Your task to perform on an android device: check battery use Image 0: 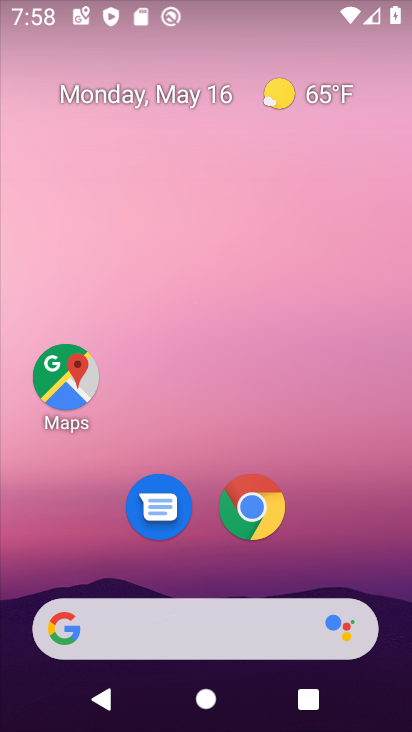
Step 0: press home button
Your task to perform on an android device: check battery use Image 1: 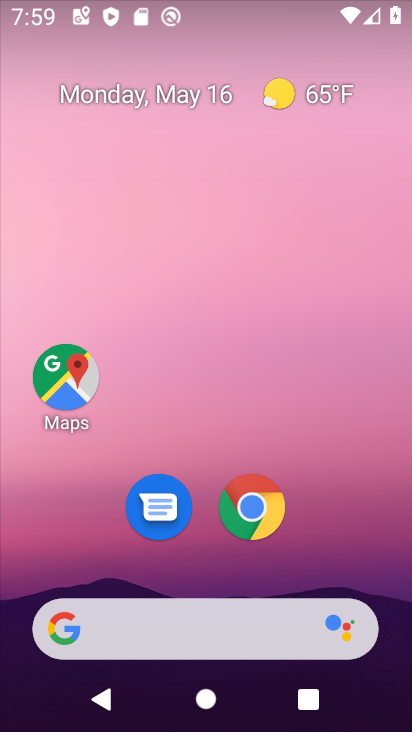
Step 1: drag from (202, 424) to (206, 51)
Your task to perform on an android device: check battery use Image 2: 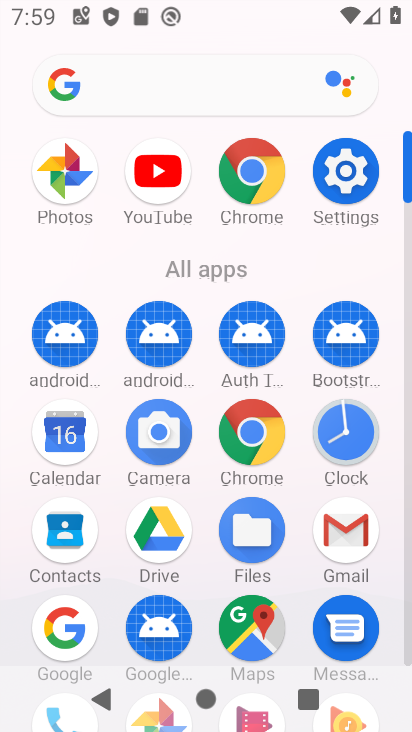
Step 2: drag from (209, 559) to (216, 79)
Your task to perform on an android device: check battery use Image 3: 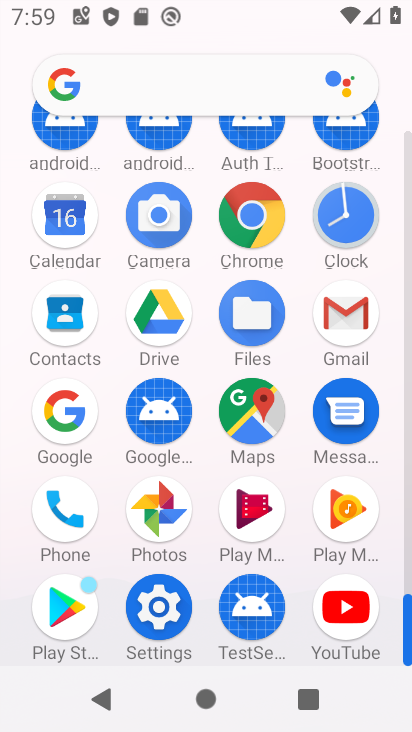
Step 3: click (157, 603)
Your task to perform on an android device: check battery use Image 4: 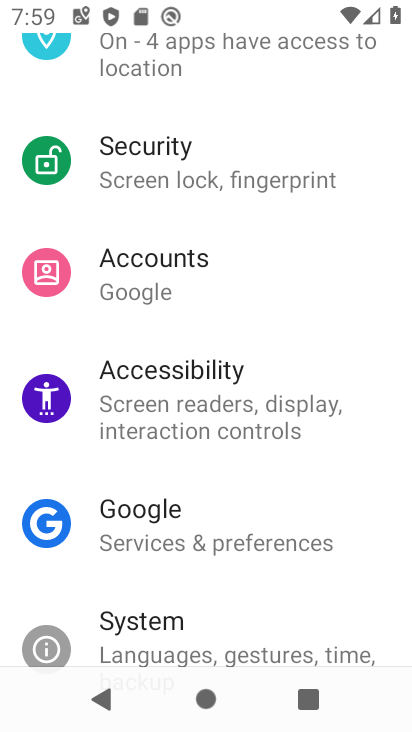
Step 4: drag from (167, 97) to (193, 588)
Your task to perform on an android device: check battery use Image 5: 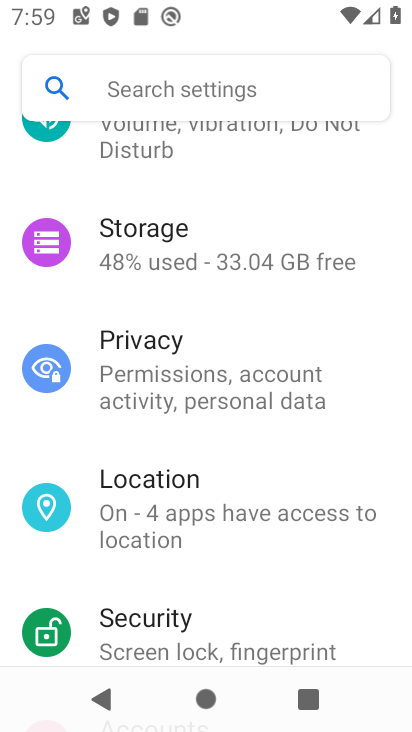
Step 5: drag from (164, 169) to (210, 522)
Your task to perform on an android device: check battery use Image 6: 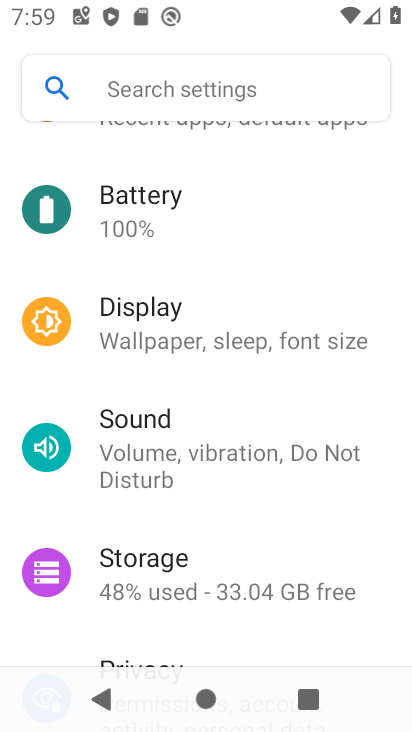
Step 6: click (164, 214)
Your task to perform on an android device: check battery use Image 7: 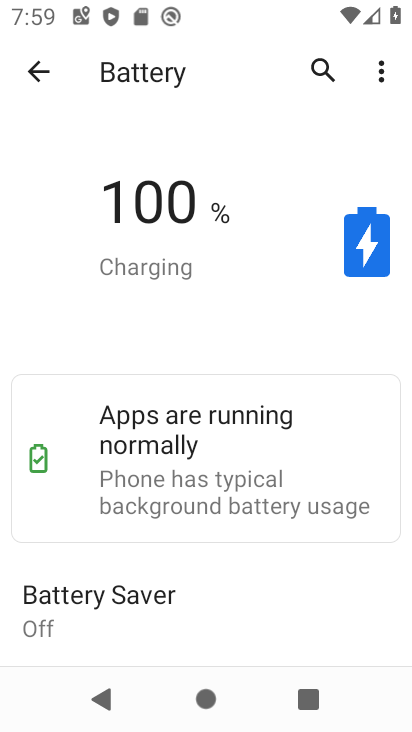
Step 7: drag from (216, 546) to (242, 235)
Your task to perform on an android device: check battery use Image 8: 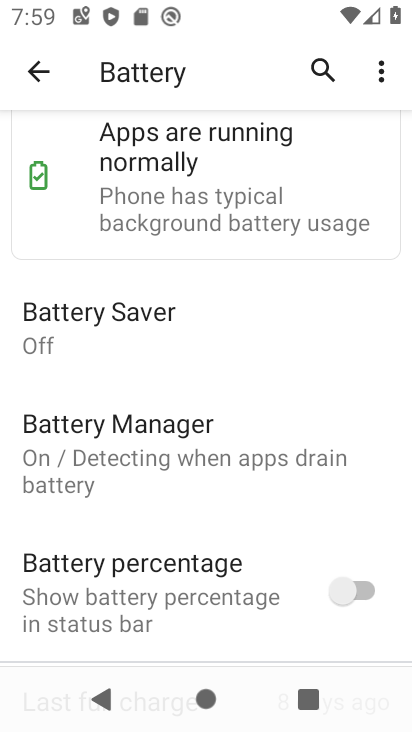
Step 8: click (375, 67)
Your task to perform on an android device: check battery use Image 9: 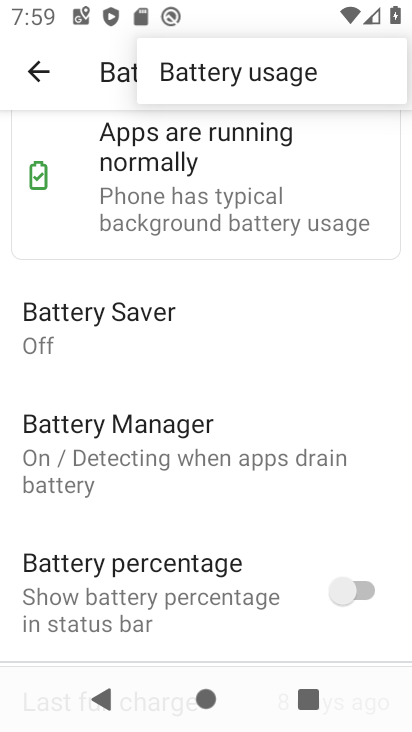
Step 9: click (243, 79)
Your task to perform on an android device: check battery use Image 10: 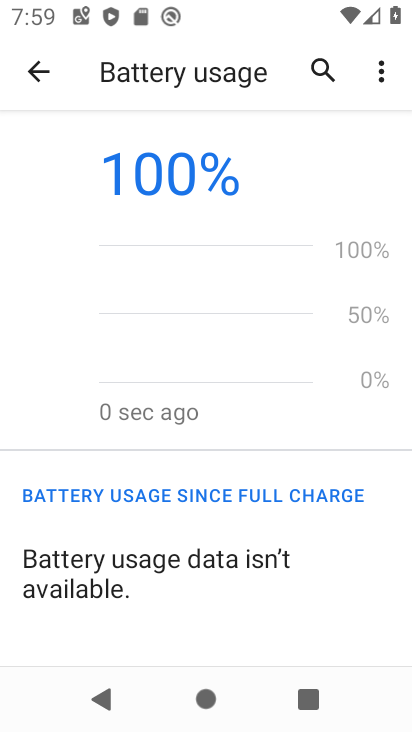
Step 10: task complete